Your task to perform on an android device: Go to internet settings Image 0: 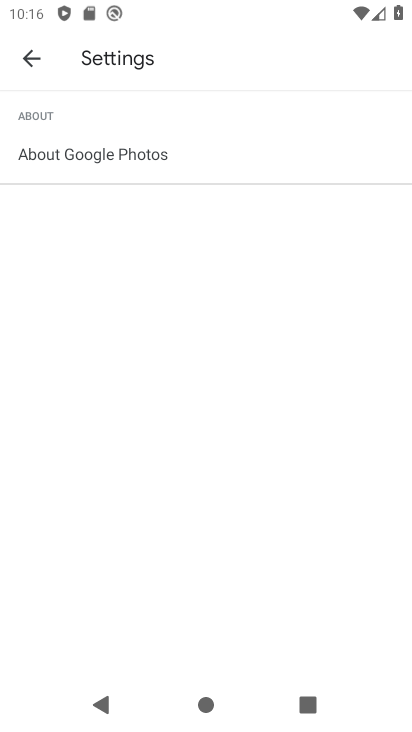
Step 0: press home button
Your task to perform on an android device: Go to internet settings Image 1: 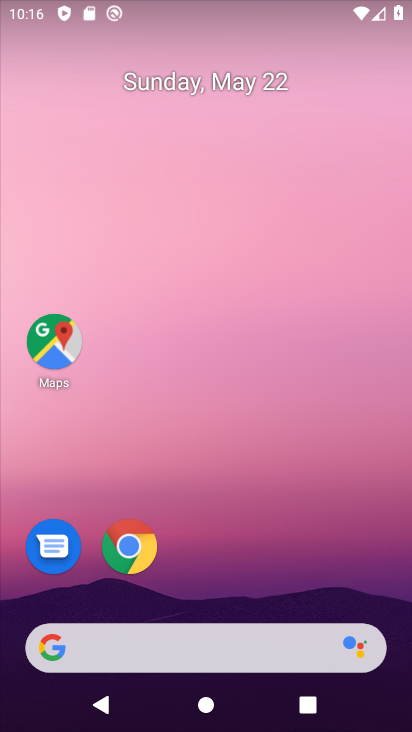
Step 1: drag from (194, 578) to (197, 88)
Your task to perform on an android device: Go to internet settings Image 2: 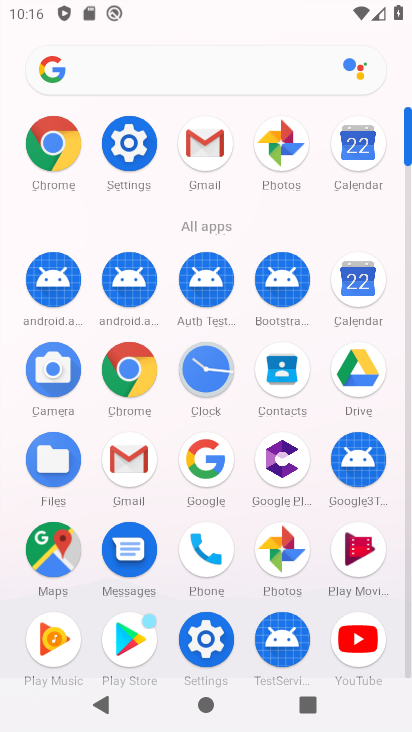
Step 2: click (208, 642)
Your task to perform on an android device: Go to internet settings Image 3: 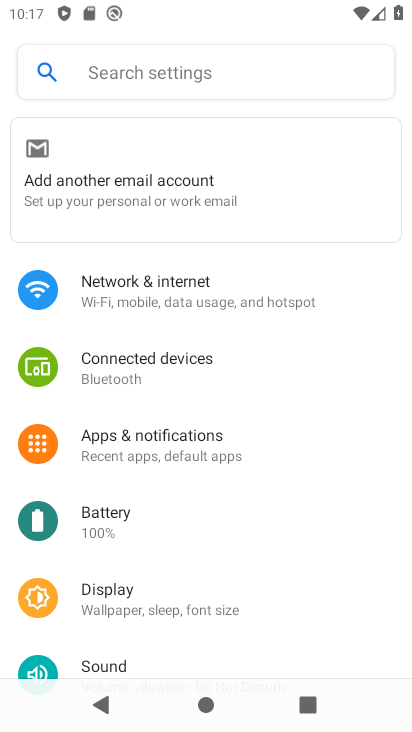
Step 3: click (153, 281)
Your task to perform on an android device: Go to internet settings Image 4: 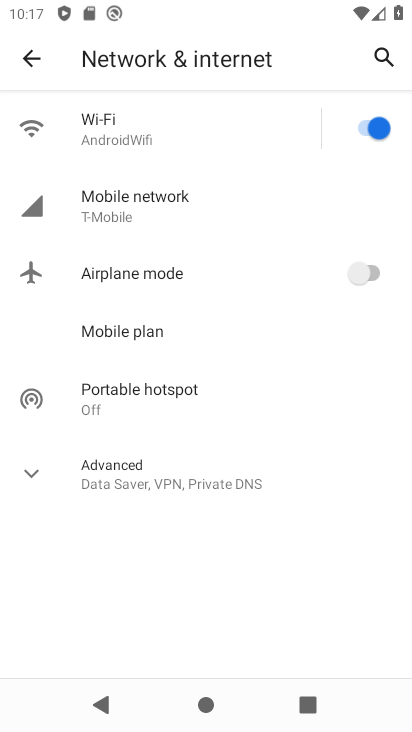
Step 4: task complete